Your task to perform on an android device: Go to Yahoo.com Image 0: 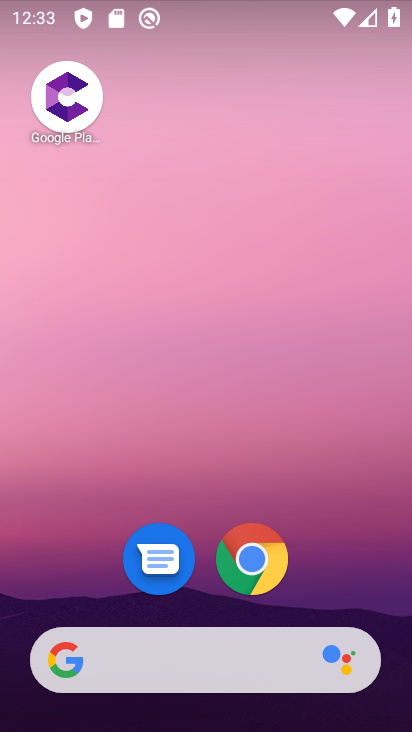
Step 0: drag from (347, 571) to (260, 0)
Your task to perform on an android device: Go to Yahoo.com Image 1: 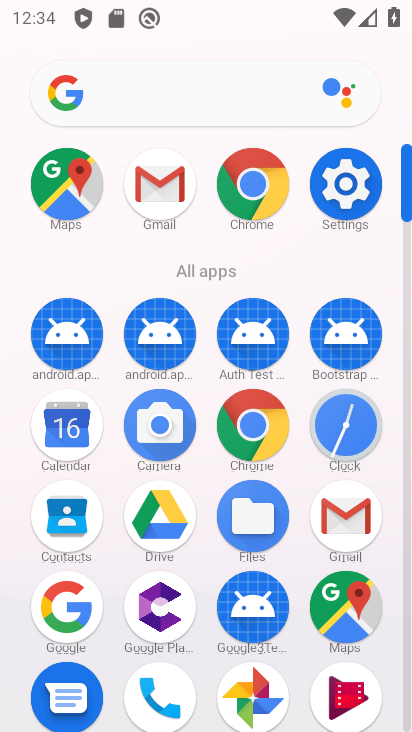
Step 1: click (237, 209)
Your task to perform on an android device: Go to Yahoo.com Image 2: 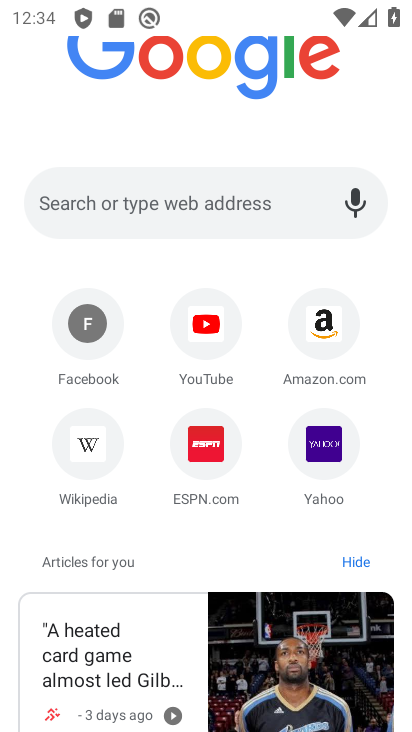
Step 2: click (309, 468)
Your task to perform on an android device: Go to Yahoo.com Image 3: 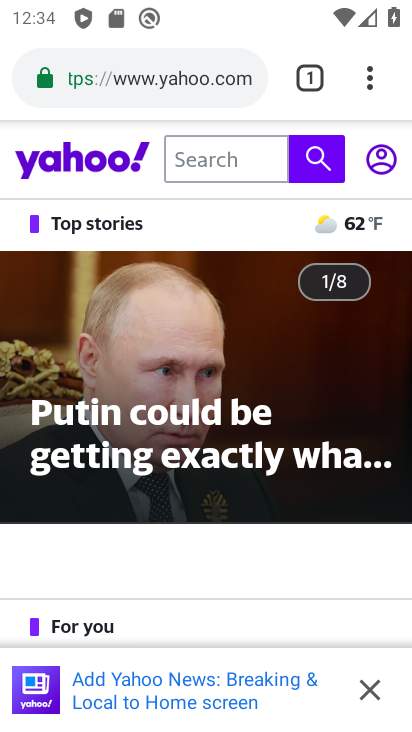
Step 3: task complete